Your task to perform on an android device: move a message to another label in the gmail app Image 0: 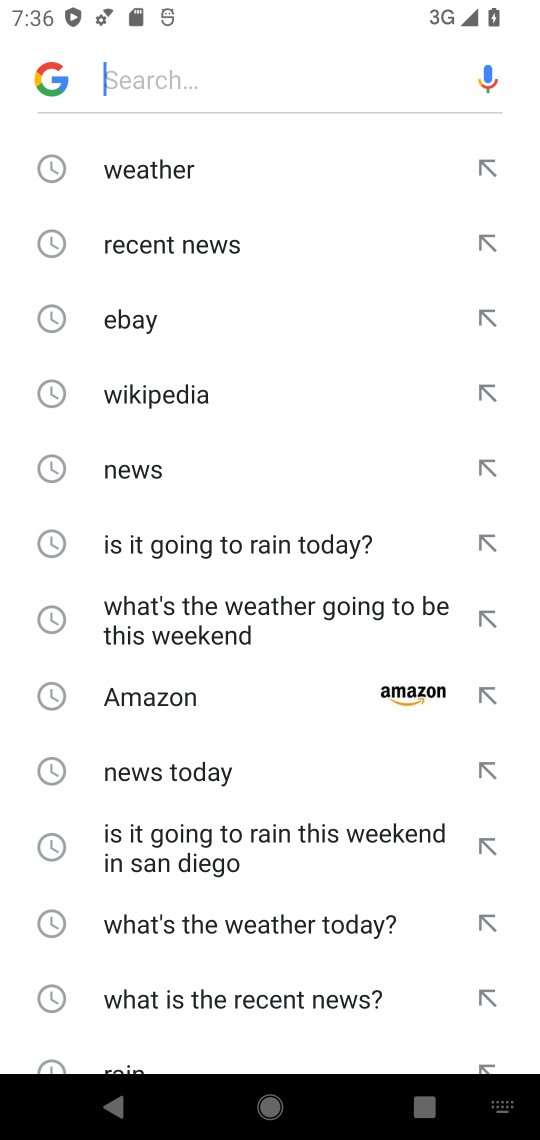
Step 0: press home button
Your task to perform on an android device: move a message to another label in the gmail app Image 1: 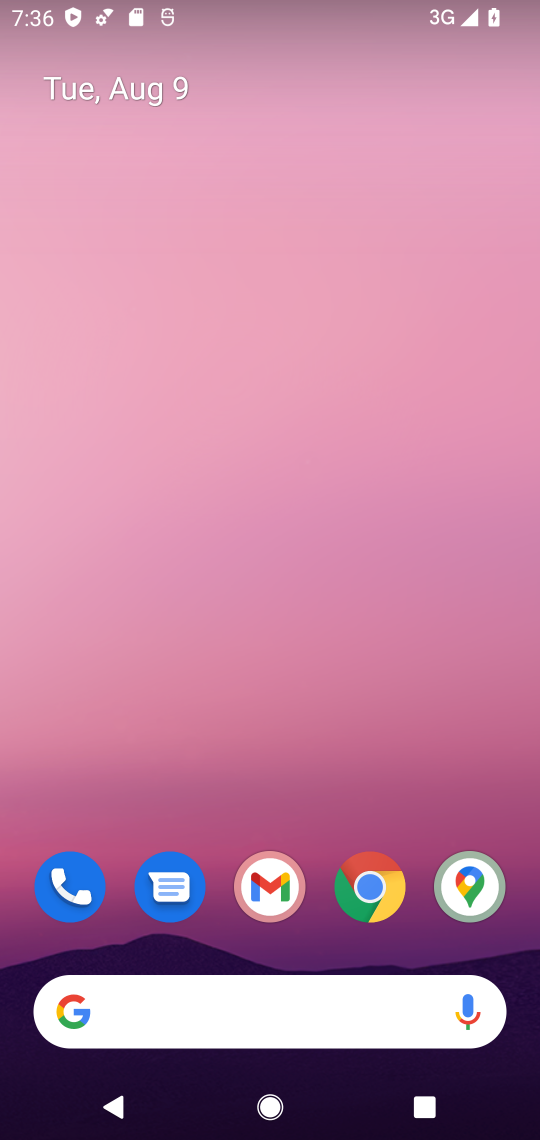
Step 1: click (282, 882)
Your task to perform on an android device: move a message to another label in the gmail app Image 2: 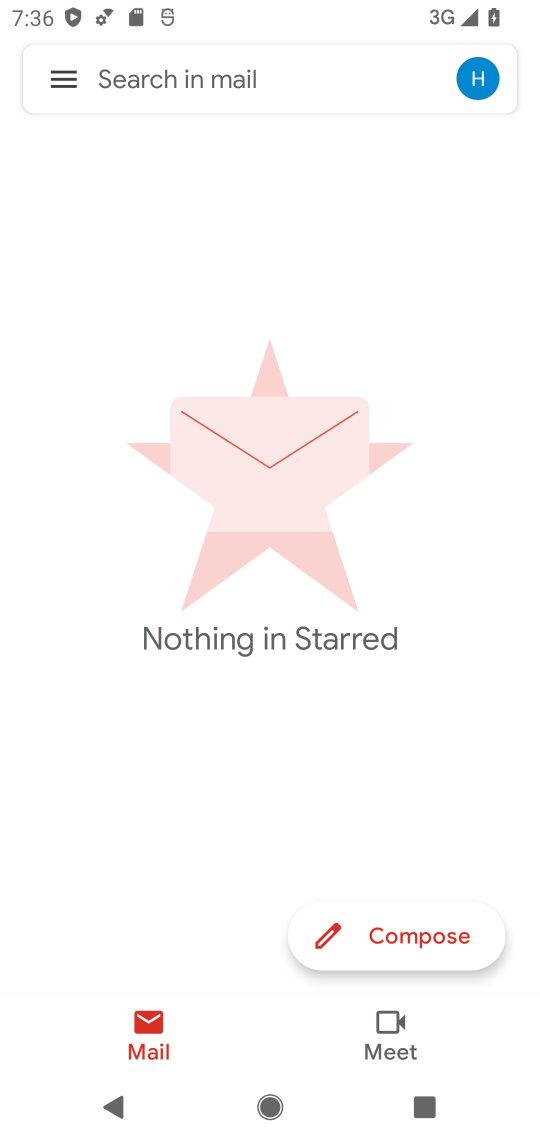
Step 2: click (57, 80)
Your task to perform on an android device: move a message to another label in the gmail app Image 3: 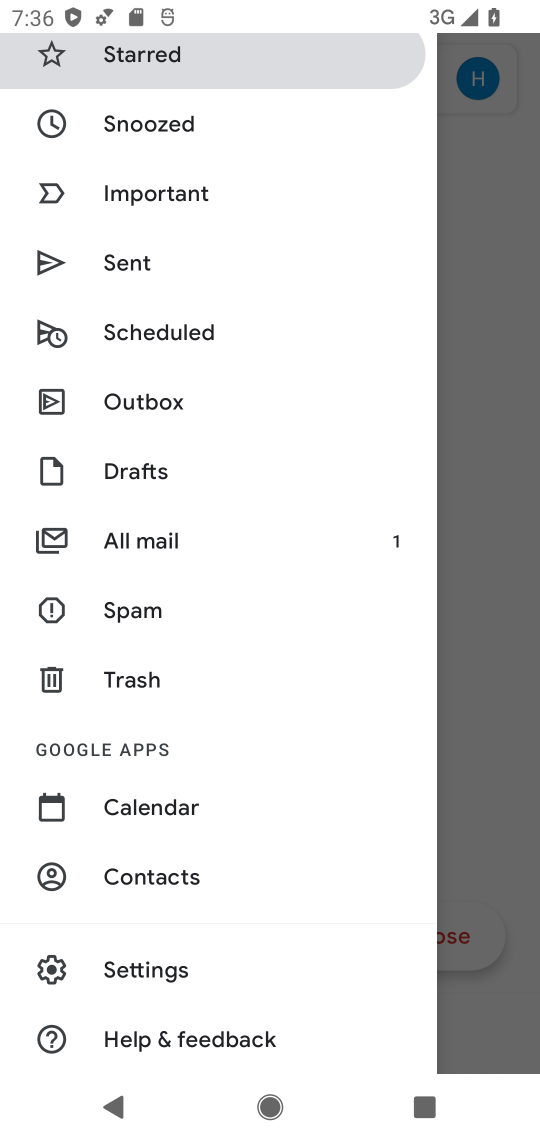
Step 3: click (173, 523)
Your task to perform on an android device: move a message to another label in the gmail app Image 4: 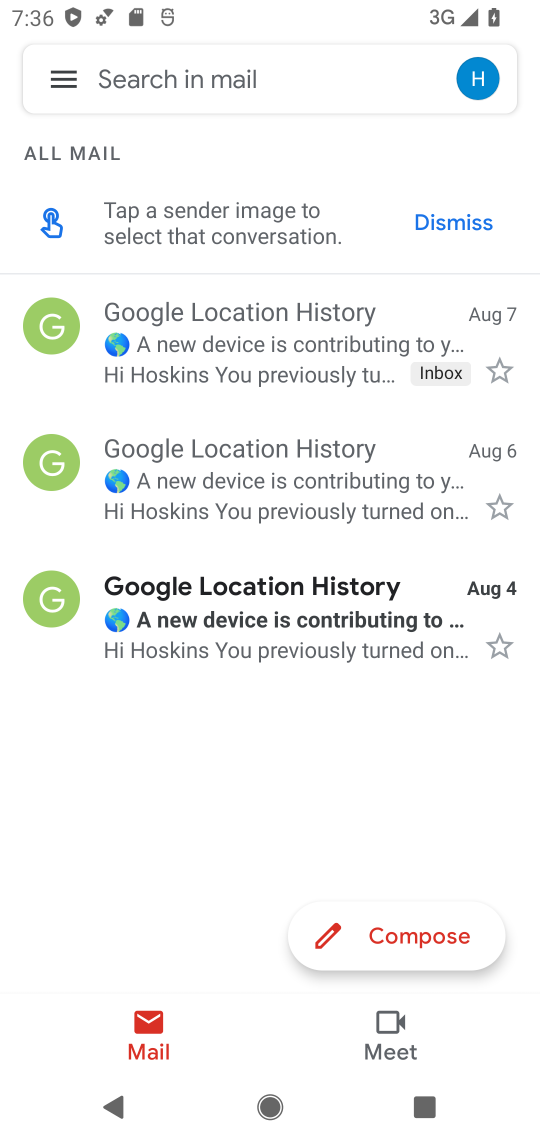
Step 4: click (272, 362)
Your task to perform on an android device: move a message to another label in the gmail app Image 5: 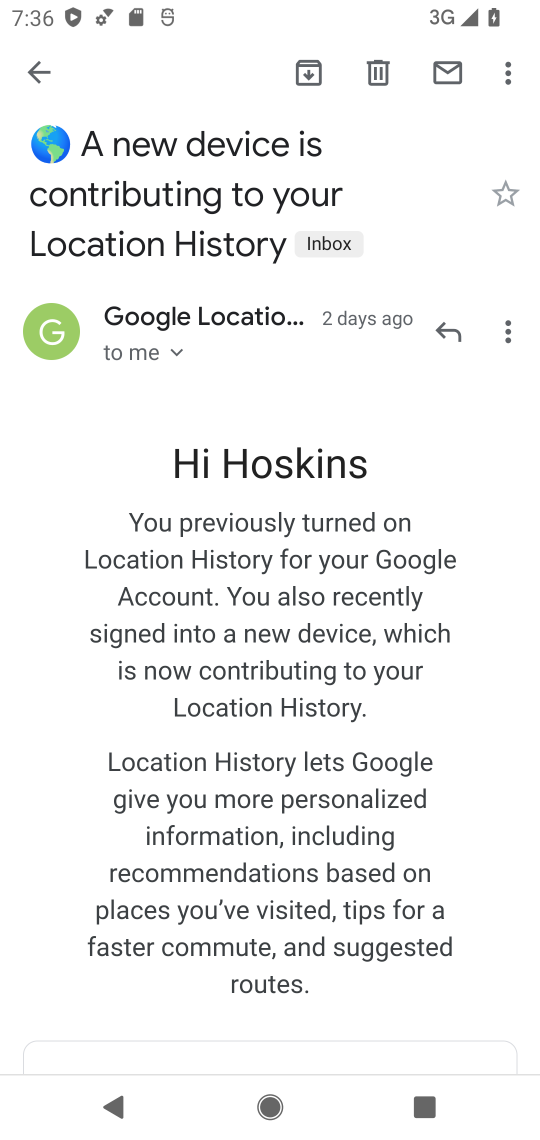
Step 5: click (500, 74)
Your task to perform on an android device: move a message to another label in the gmail app Image 6: 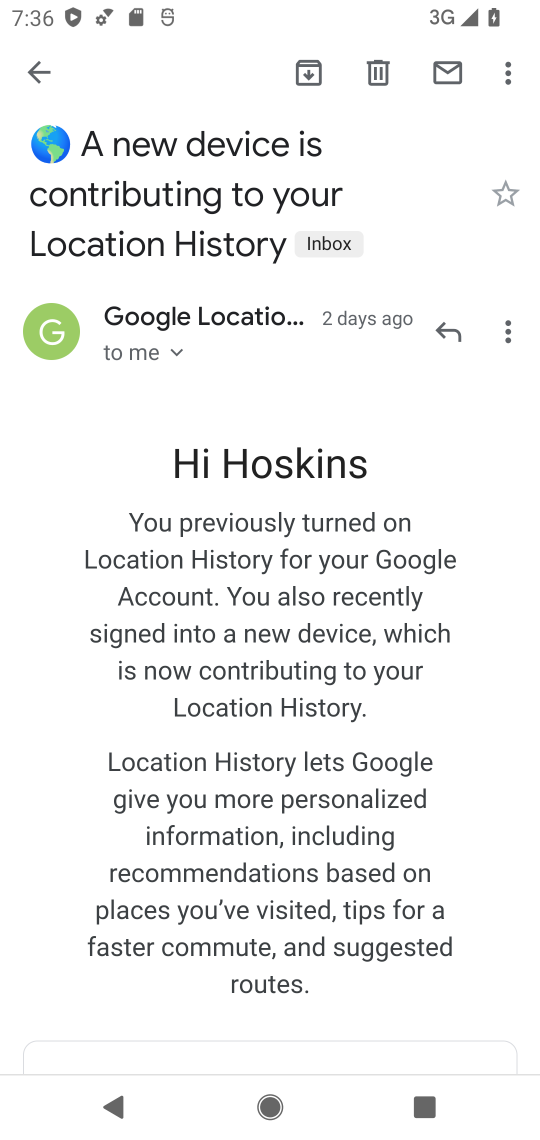
Step 6: click (500, 76)
Your task to perform on an android device: move a message to another label in the gmail app Image 7: 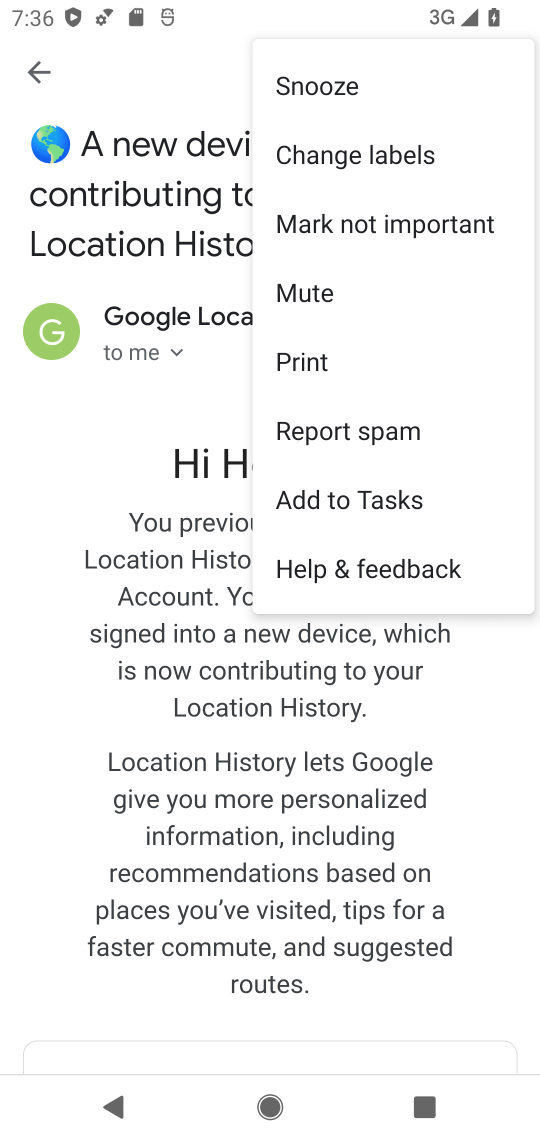
Step 7: click (455, 150)
Your task to perform on an android device: move a message to another label in the gmail app Image 8: 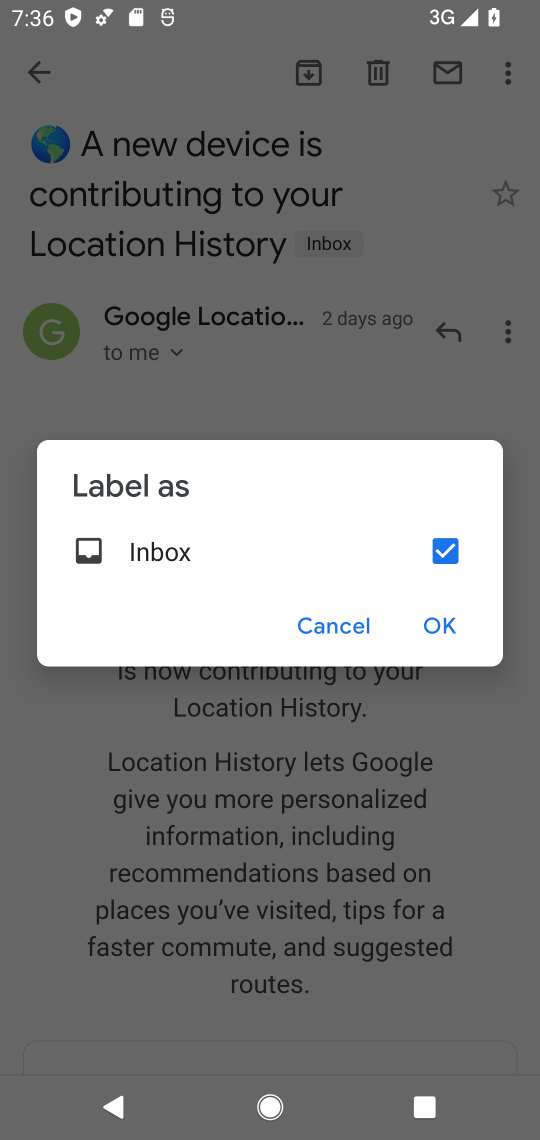
Step 8: click (457, 546)
Your task to perform on an android device: move a message to another label in the gmail app Image 9: 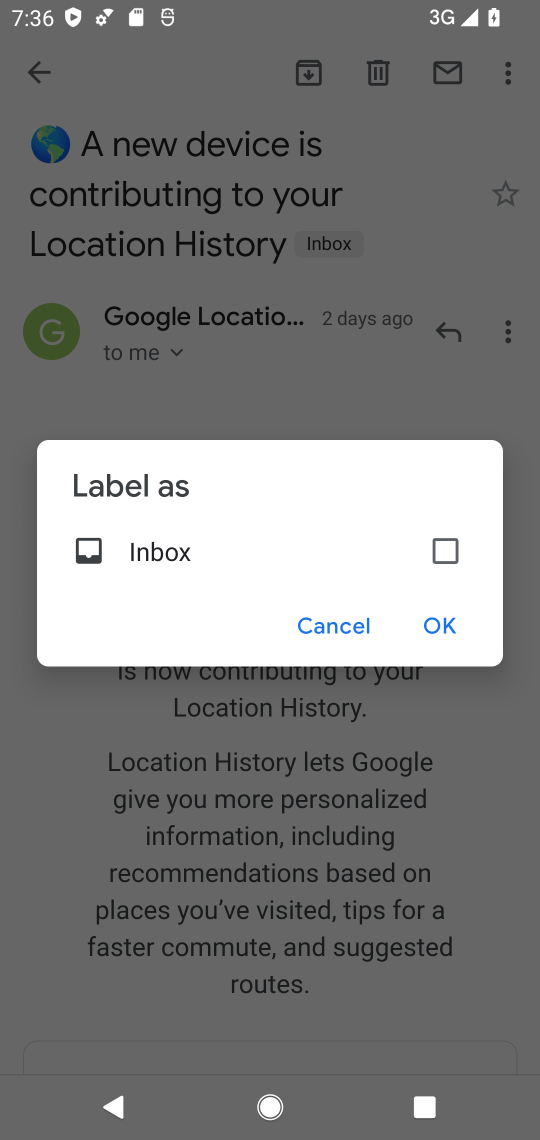
Step 9: click (451, 623)
Your task to perform on an android device: move a message to another label in the gmail app Image 10: 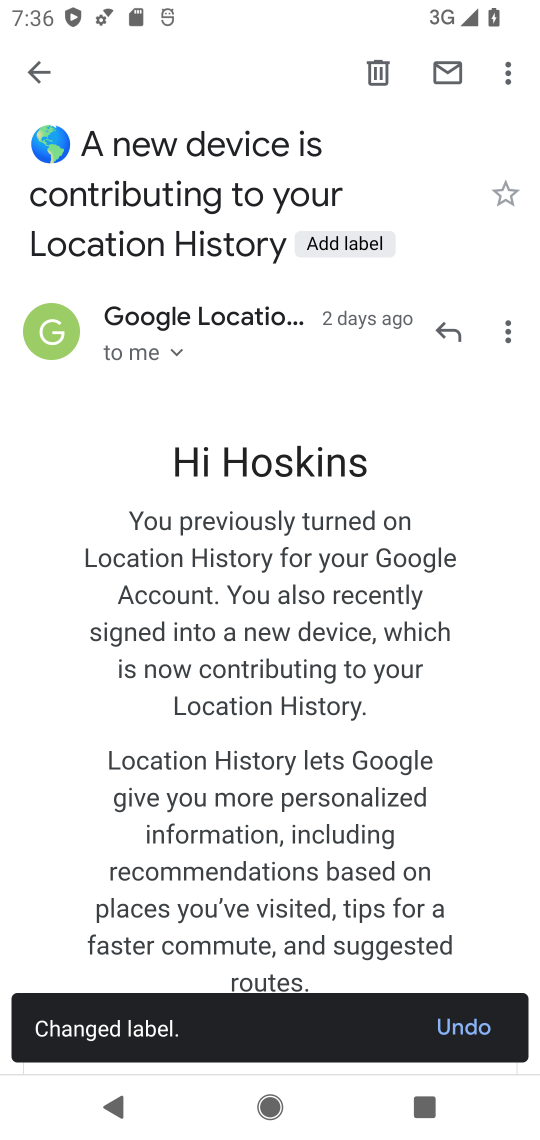
Step 10: task complete